Your task to perform on an android device: Go to Wikipedia Image 0: 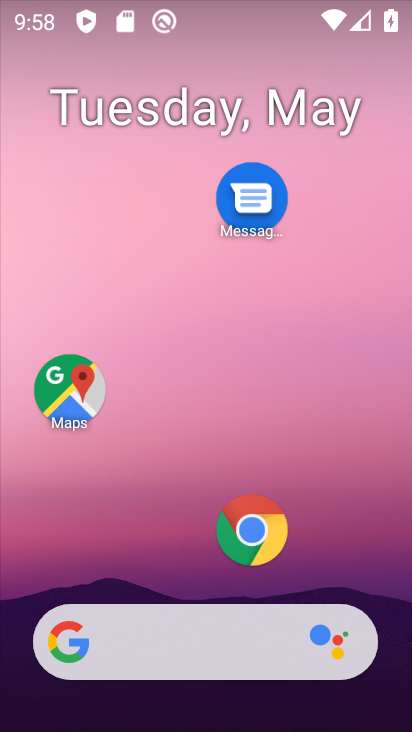
Step 0: click (249, 550)
Your task to perform on an android device: Go to Wikipedia Image 1: 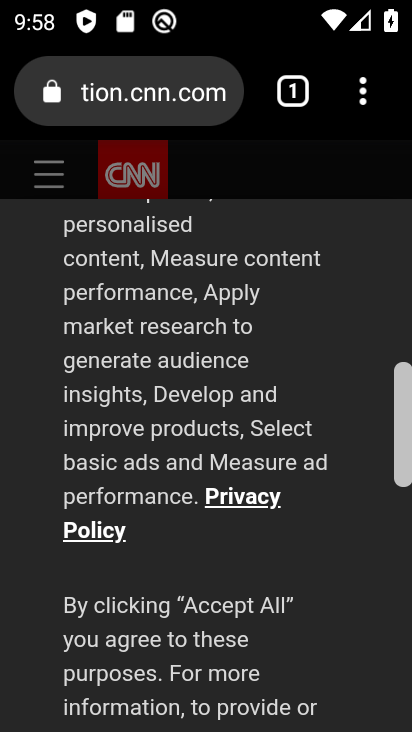
Step 1: press back button
Your task to perform on an android device: Go to Wikipedia Image 2: 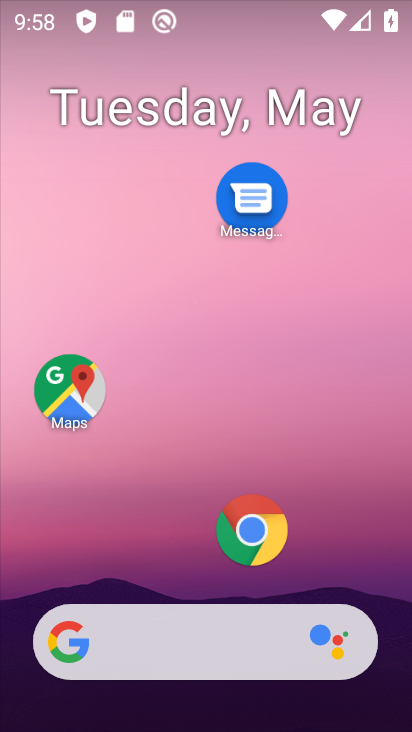
Step 2: click (248, 536)
Your task to perform on an android device: Go to Wikipedia Image 3: 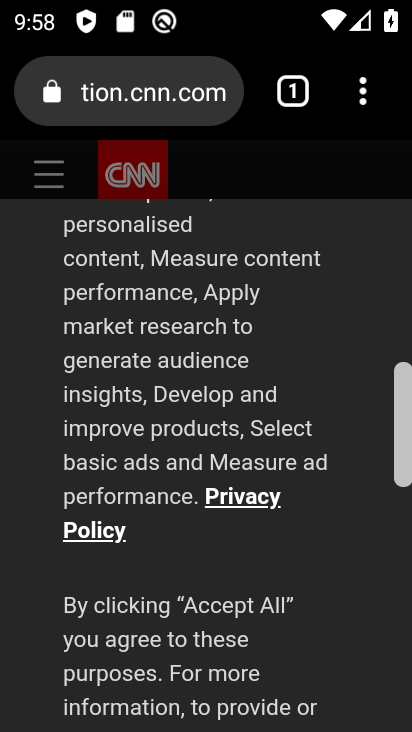
Step 3: click (151, 115)
Your task to perform on an android device: Go to Wikipedia Image 4: 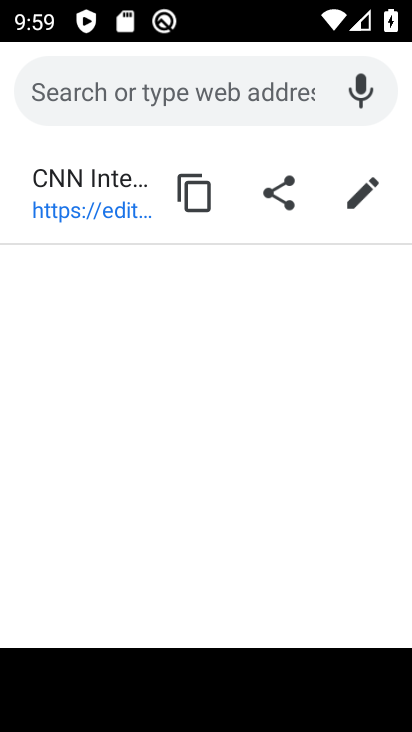
Step 4: type "www.wikipedia.com"
Your task to perform on an android device: Go to Wikipedia Image 5: 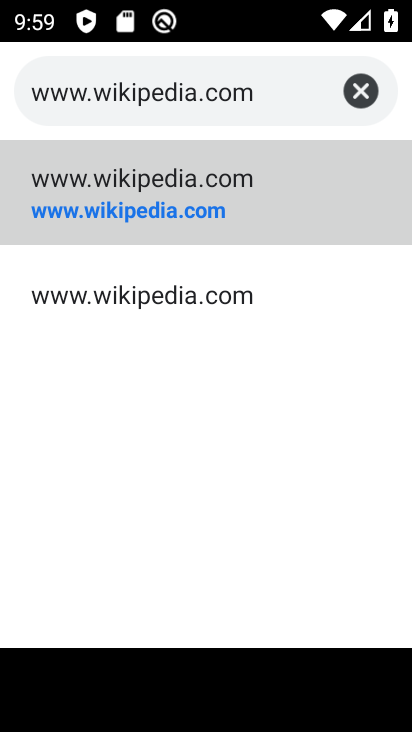
Step 5: click (141, 185)
Your task to perform on an android device: Go to Wikipedia Image 6: 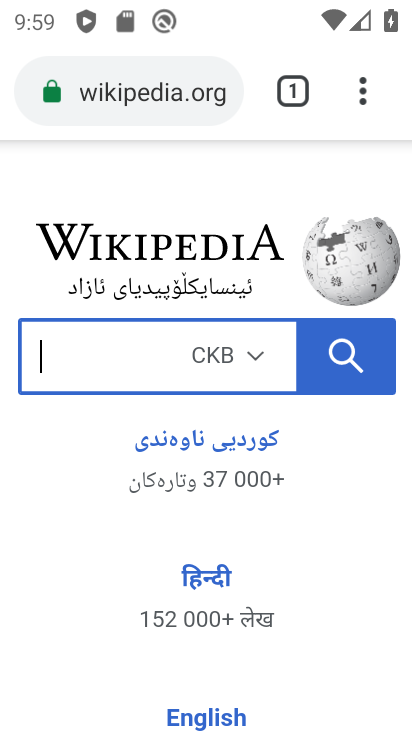
Step 6: task complete